Your task to perform on an android device: Open maps Image 0: 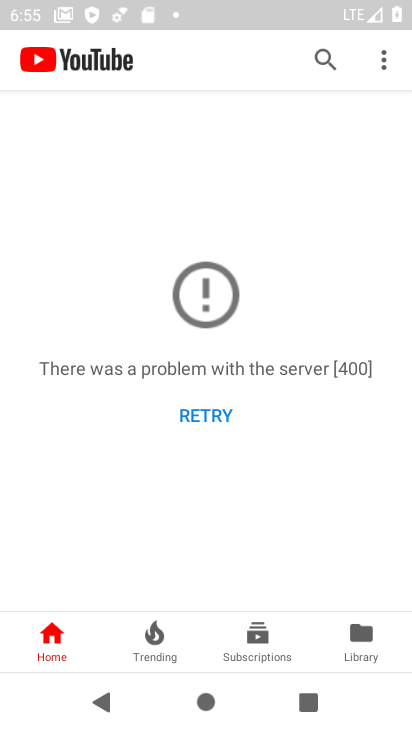
Step 0: press home button
Your task to perform on an android device: Open maps Image 1: 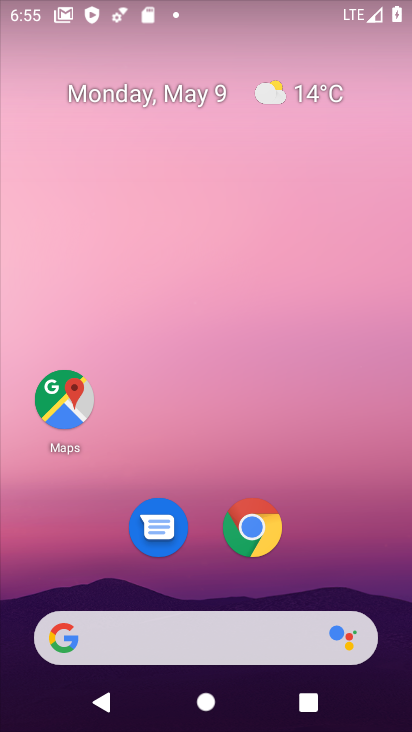
Step 1: click (65, 401)
Your task to perform on an android device: Open maps Image 2: 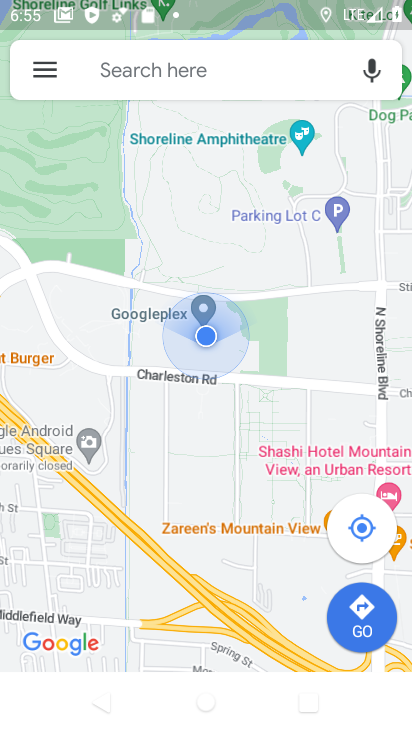
Step 2: task complete